Your task to perform on an android device: Open notification settings Image 0: 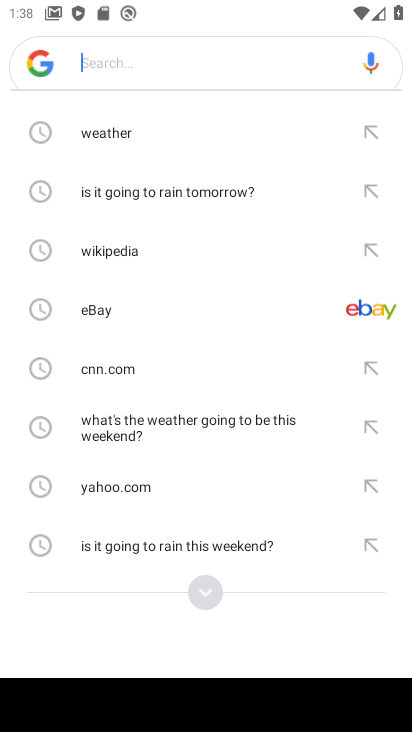
Step 0: press home button
Your task to perform on an android device: Open notification settings Image 1: 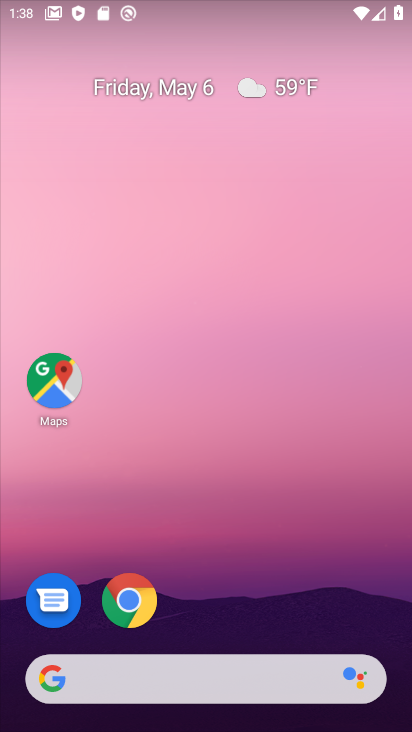
Step 1: drag from (234, 589) to (225, 79)
Your task to perform on an android device: Open notification settings Image 2: 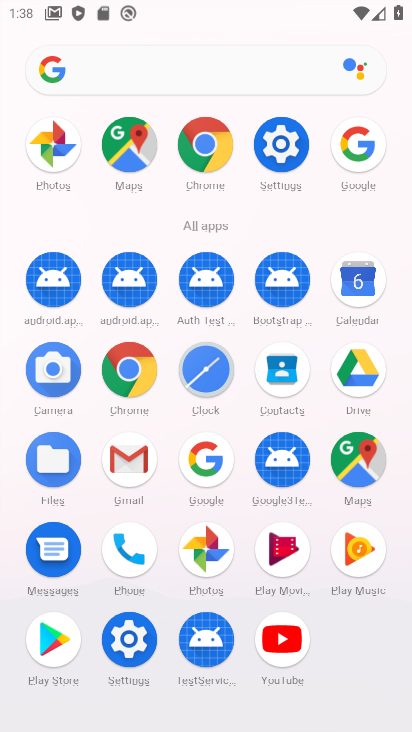
Step 2: click (276, 140)
Your task to perform on an android device: Open notification settings Image 3: 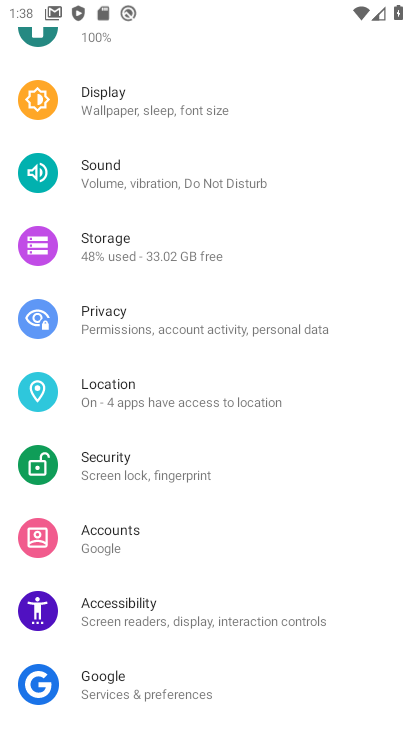
Step 3: drag from (137, 114) to (187, 523)
Your task to perform on an android device: Open notification settings Image 4: 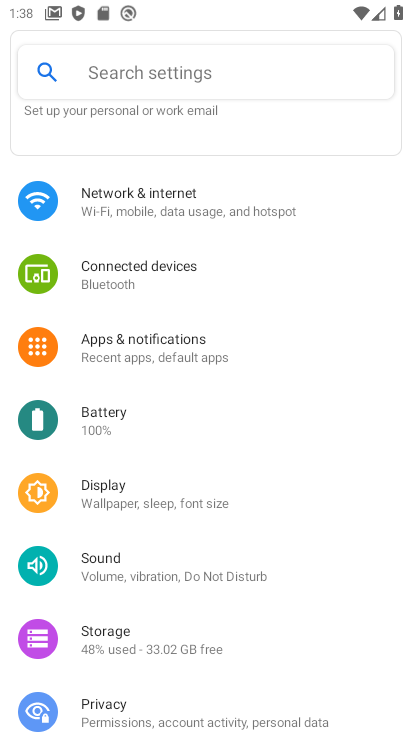
Step 4: click (147, 341)
Your task to perform on an android device: Open notification settings Image 5: 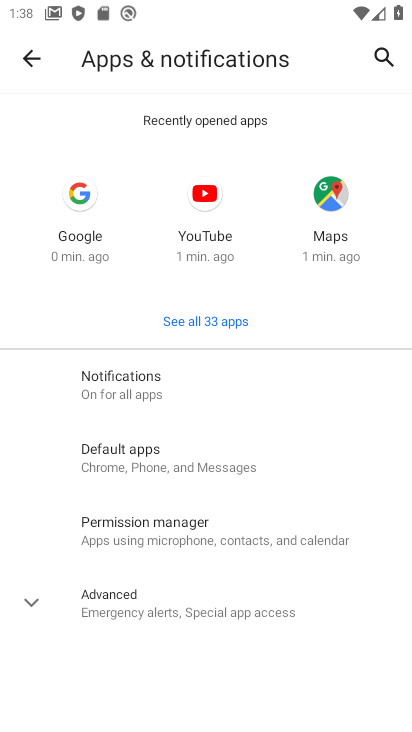
Step 5: click (154, 387)
Your task to perform on an android device: Open notification settings Image 6: 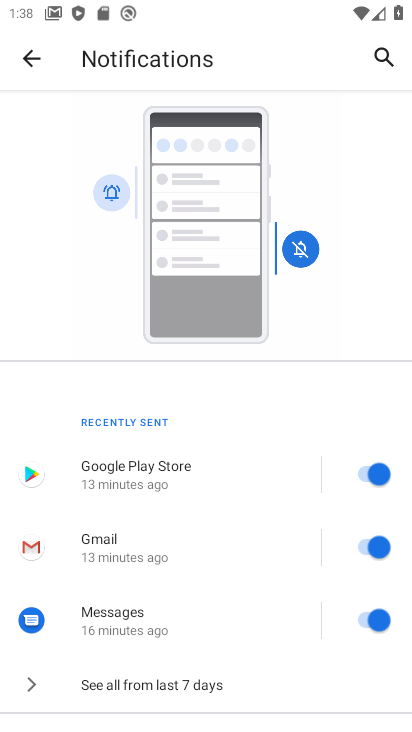
Step 6: task complete